Your task to perform on an android device: Open calendar and show me the fourth week of next month Image 0: 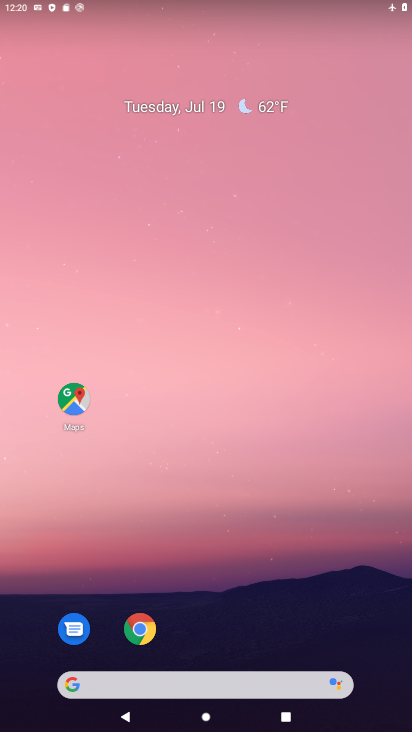
Step 0: drag from (220, 656) to (217, 46)
Your task to perform on an android device: Open calendar and show me the fourth week of next month Image 1: 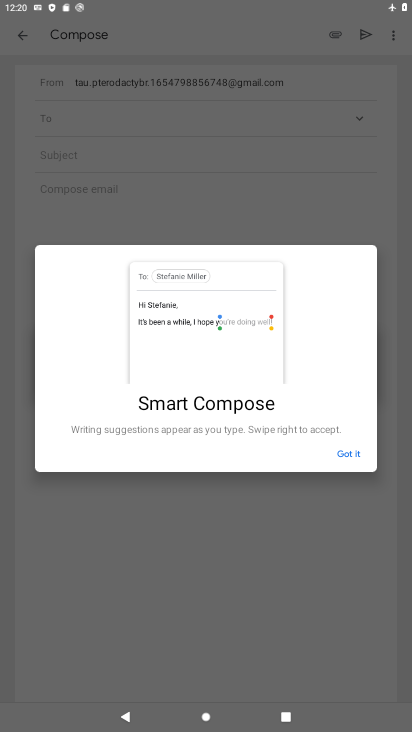
Step 1: press home button
Your task to perform on an android device: Open calendar and show me the fourth week of next month Image 2: 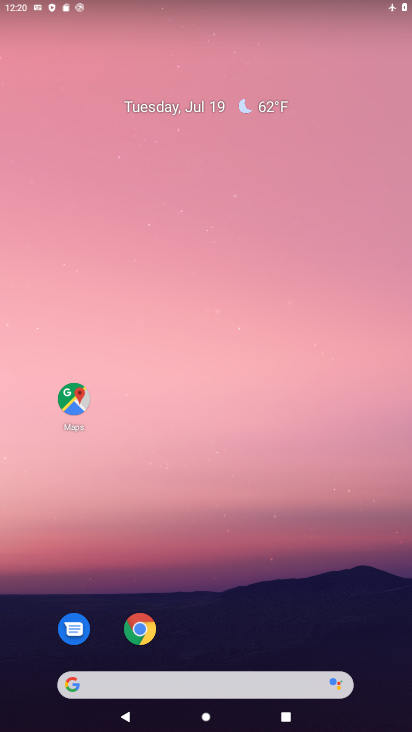
Step 2: drag from (222, 675) to (153, 41)
Your task to perform on an android device: Open calendar and show me the fourth week of next month Image 3: 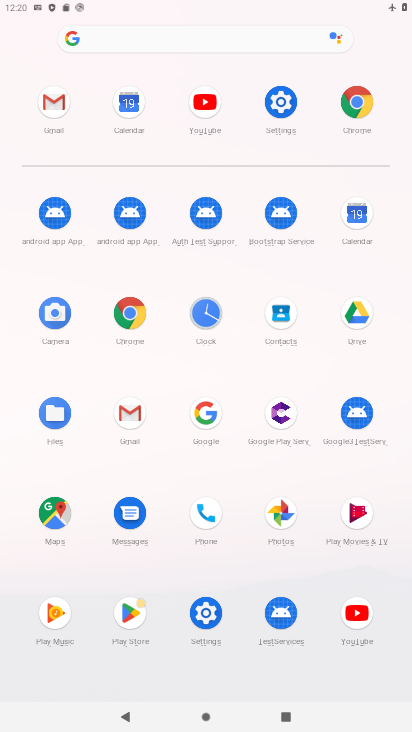
Step 3: click (360, 212)
Your task to perform on an android device: Open calendar and show me the fourth week of next month Image 4: 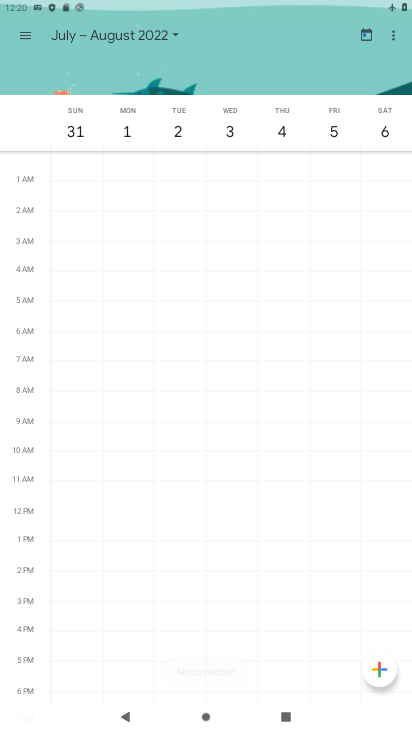
Step 4: task complete